Your task to perform on an android device: Open sound settings Image 0: 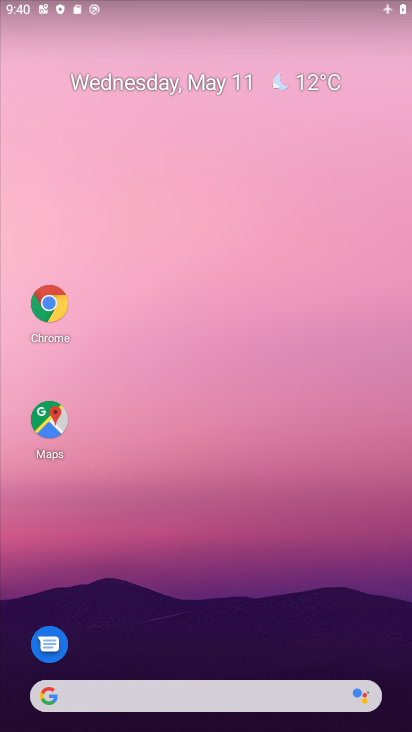
Step 0: drag from (170, 643) to (140, 195)
Your task to perform on an android device: Open sound settings Image 1: 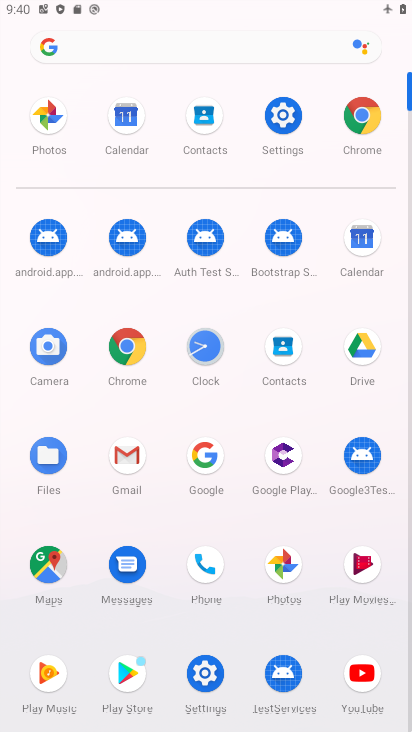
Step 1: click (282, 131)
Your task to perform on an android device: Open sound settings Image 2: 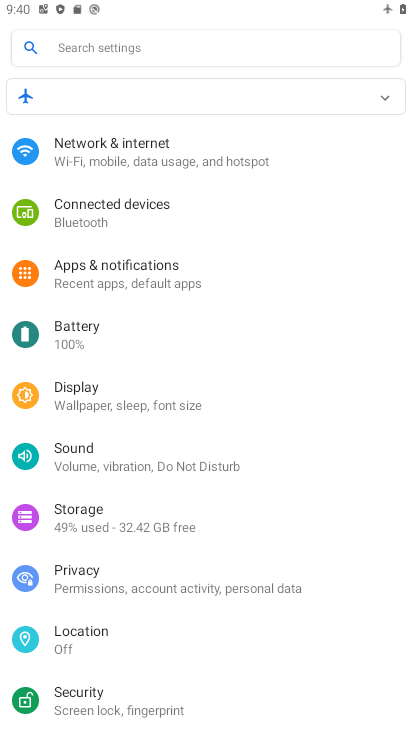
Step 2: click (84, 452)
Your task to perform on an android device: Open sound settings Image 3: 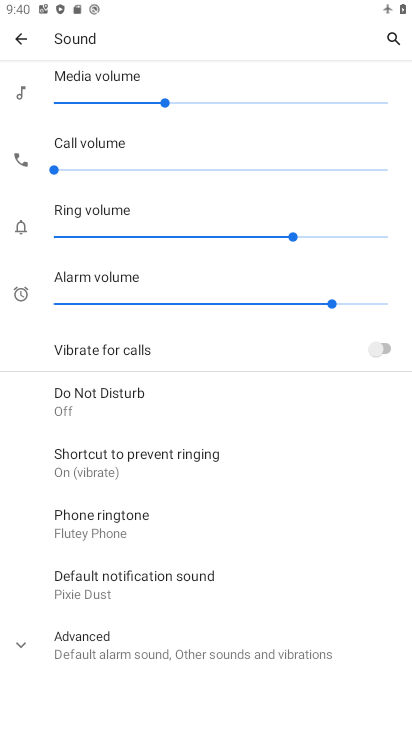
Step 3: click (137, 653)
Your task to perform on an android device: Open sound settings Image 4: 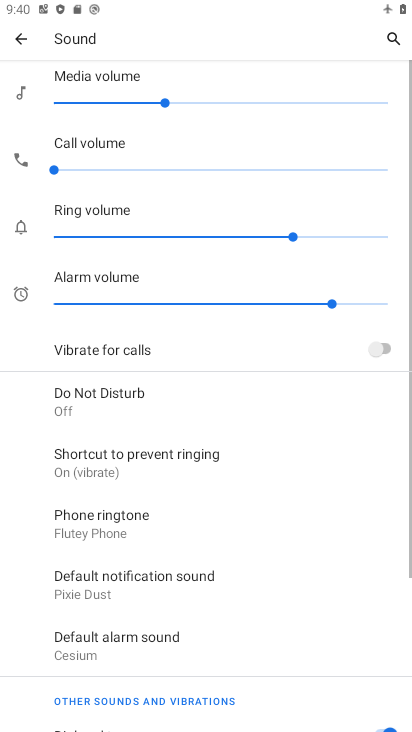
Step 4: task complete